Your task to perform on an android device: Open wifi settings Image 0: 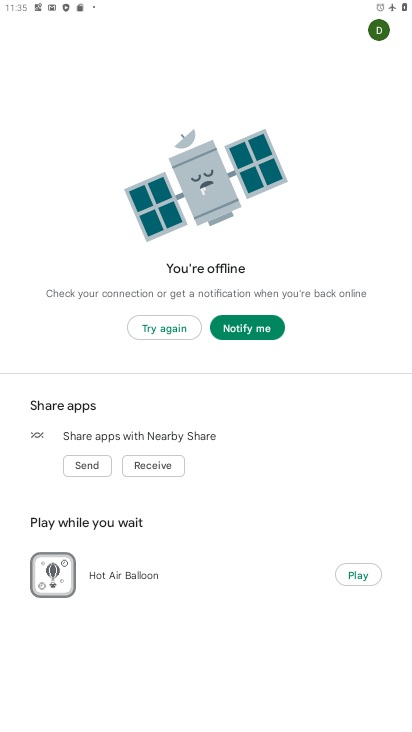
Step 0: press home button
Your task to perform on an android device: Open wifi settings Image 1: 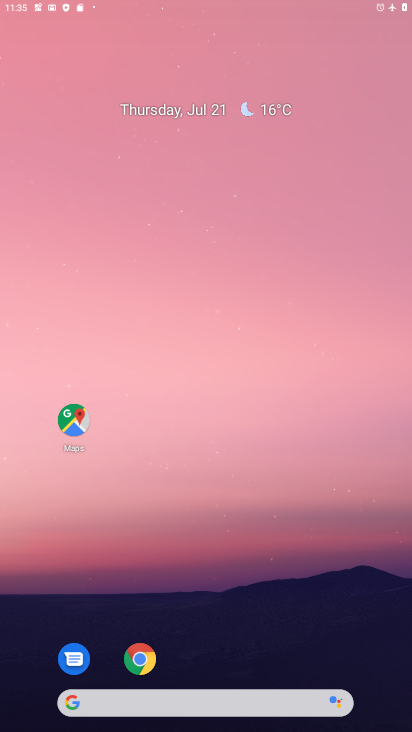
Step 1: drag from (219, 684) to (217, 176)
Your task to perform on an android device: Open wifi settings Image 2: 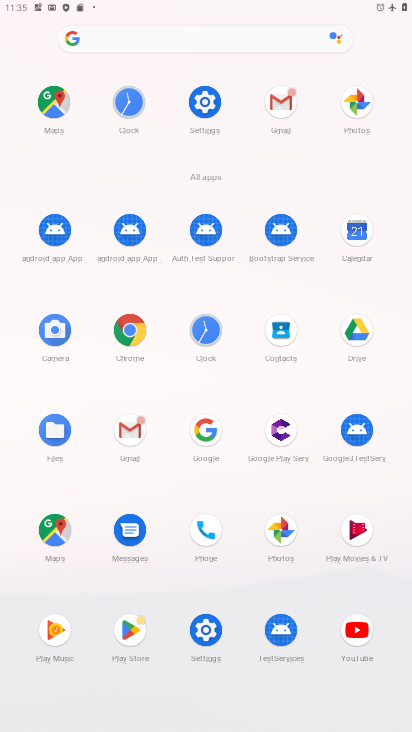
Step 2: click (203, 108)
Your task to perform on an android device: Open wifi settings Image 3: 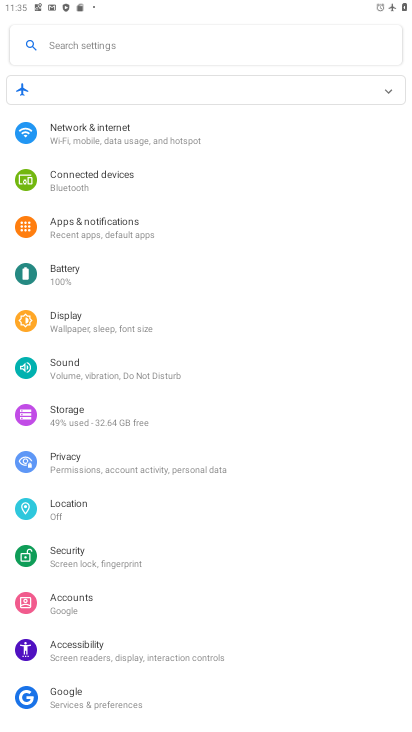
Step 3: click (91, 136)
Your task to perform on an android device: Open wifi settings Image 4: 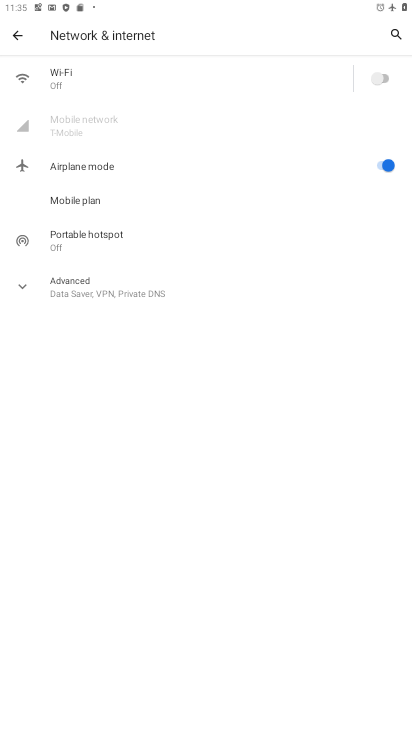
Step 4: click (81, 81)
Your task to perform on an android device: Open wifi settings Image 5: 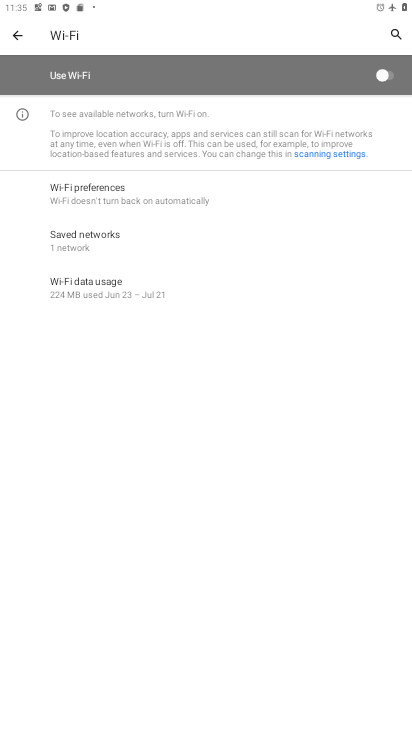
Step 5: click (384, 71)
Your task to perform on an android device: Open wifi settings Image 6: 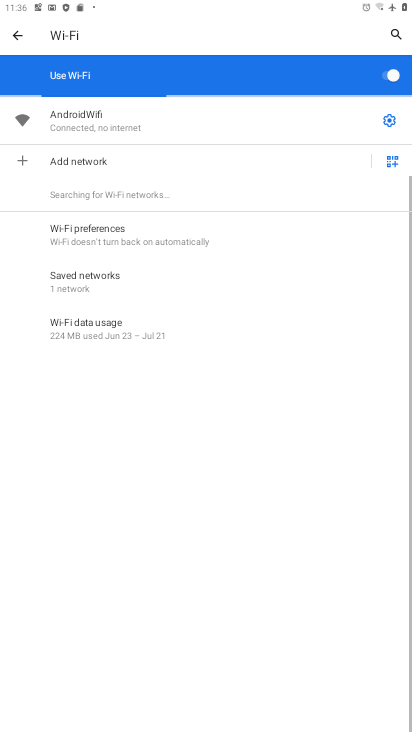
Step 6: click (159, 118)
Your task to perform on an android device: Open wifi settings Image 7: 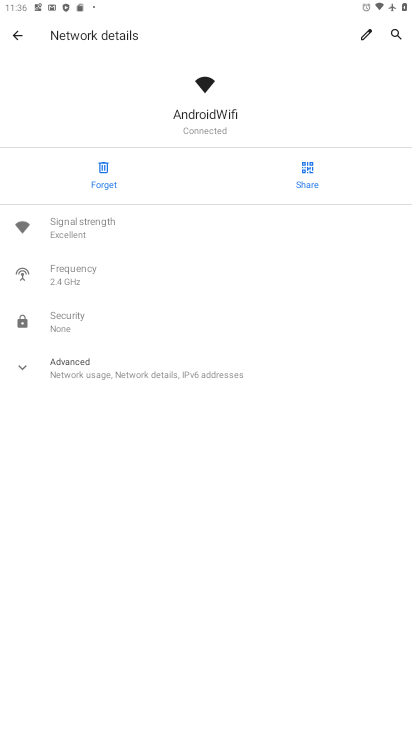
Step 7: task complete